Your task to perform on an android device: Go to ESPN.com Image 0: 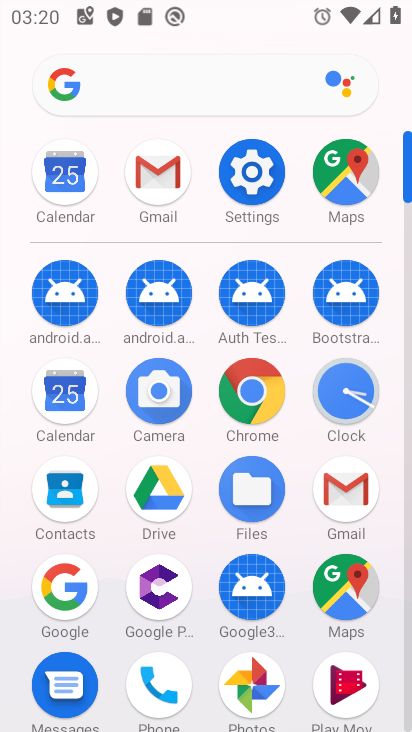
Step 0: click (265, 404)
Your task to perform on an android device: Go to ESPN.com Image 1: 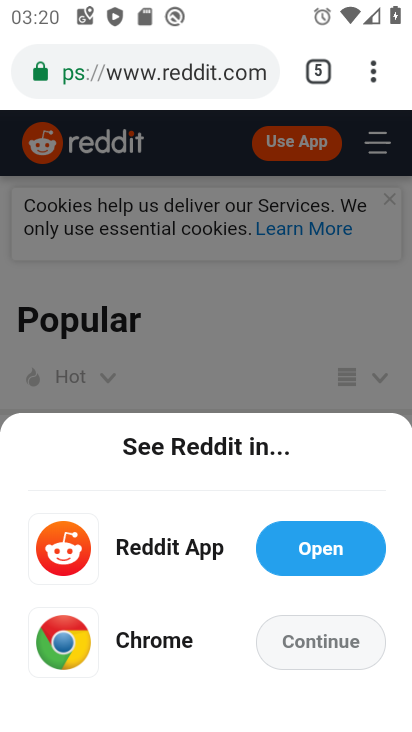
Step 1: click (376, 74)
Your task to perform on an android device: Go to ESPN.com Image 2: 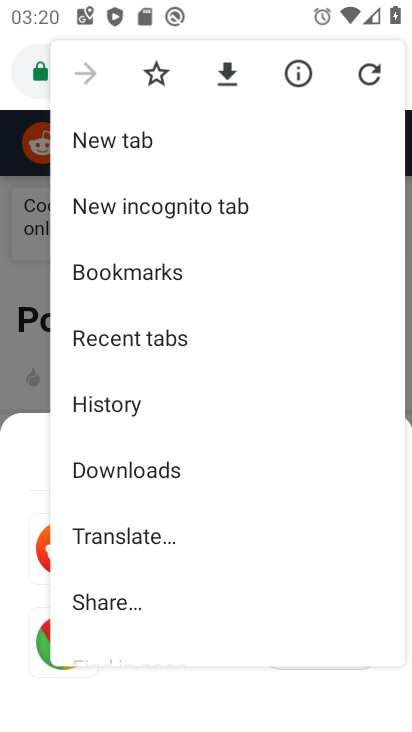
Step 2: click (143, 136)
Your task to perform on an android device: Go to ESPN.com Image 3: 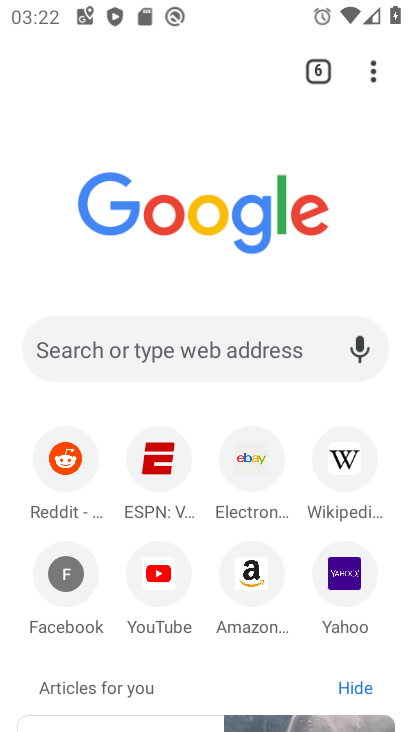
Step 3: click (155, 467)
Your task to perform on an android device: Go to ESPN.com Image 4: 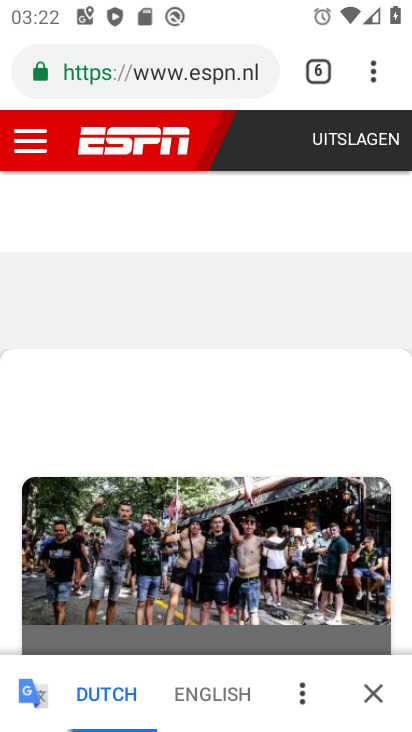
Step 4: task complete